Your task to perform on an android device: Open Google Chrome and open the bookmarks view Image 0: 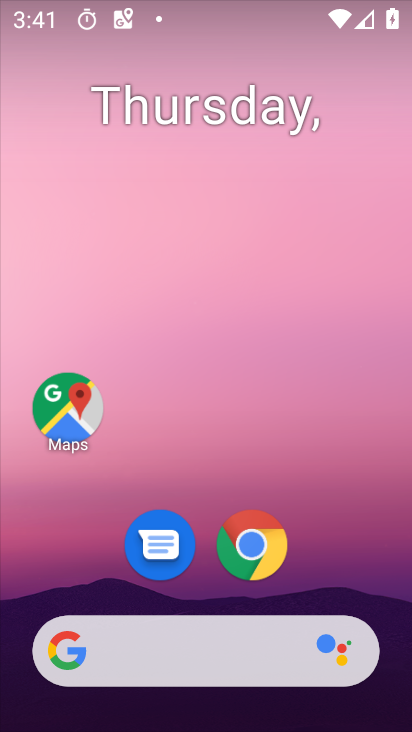
Step 0: click (226, 562)
Your task to perform on an android device: Open Google Chrome and open the bookmarks view Image 1: 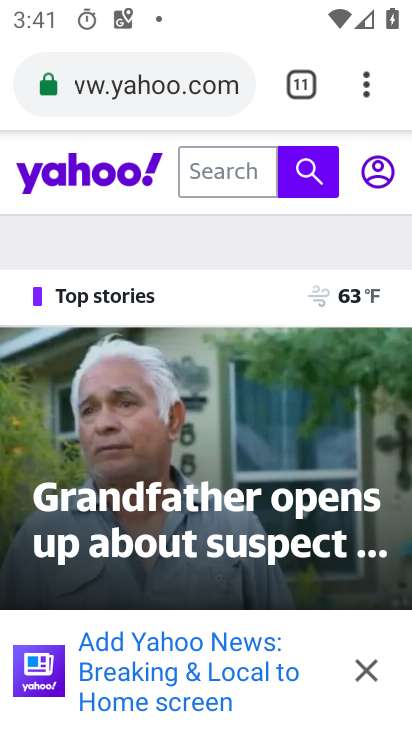
Step 1: click (365, 91)
Your task to perform on an android device: Open Google Chrome and open the bookmarks view Image 2: 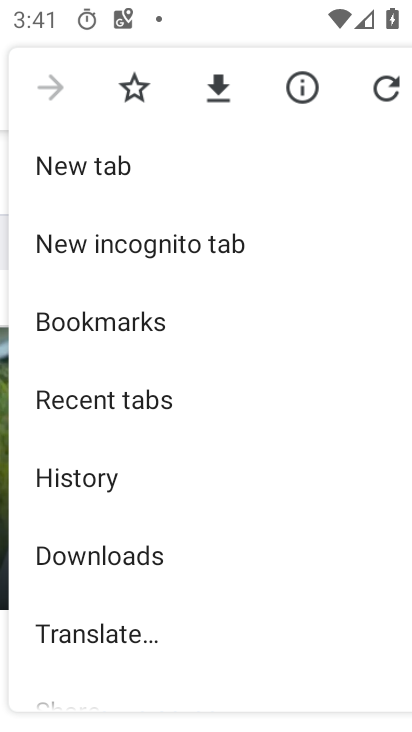
Step 2: drag from (106, 665) to (148, 240)
Your task to perform on an android device: Open Google Chrome and open the bookmarks view Image 3: 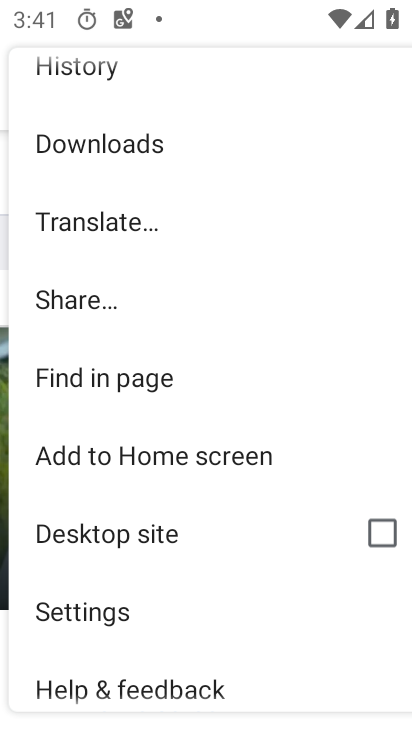
Step 3: drag from (129, 167) to (142, 513)
Your task to perform on an android device: Open Google Chrome and open the bookmarks view Image 4: 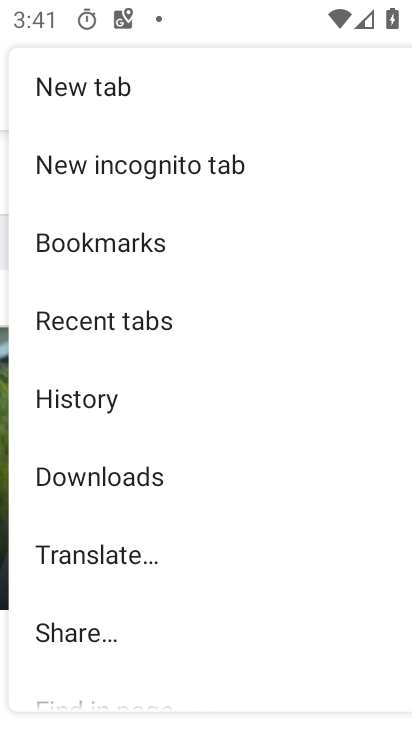
Step 4: click (129, 244)
Your task to perform on an android device: Open Google Chrome and open the bookmarks view Image 5: 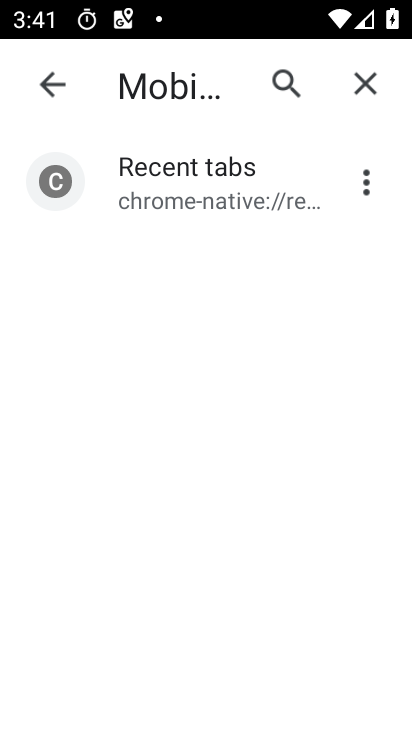
Step 5: task complete